Your task to perform on an android device: Clear the cart on amazon.com. Image 0: 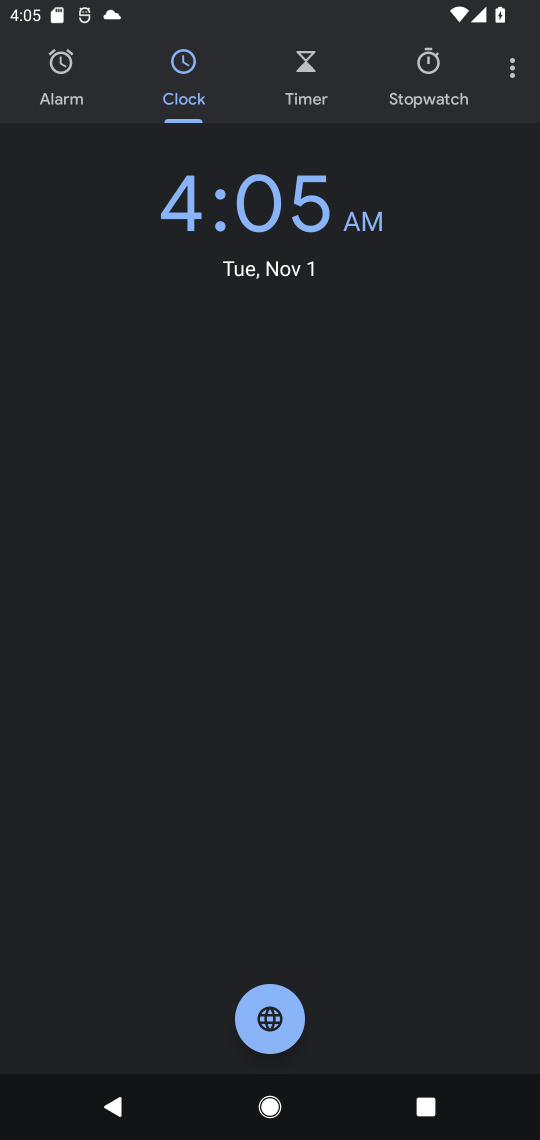
Step 0: press home button
Your task to perform on an android device: Clear the cart on amazon.com. Image 1: 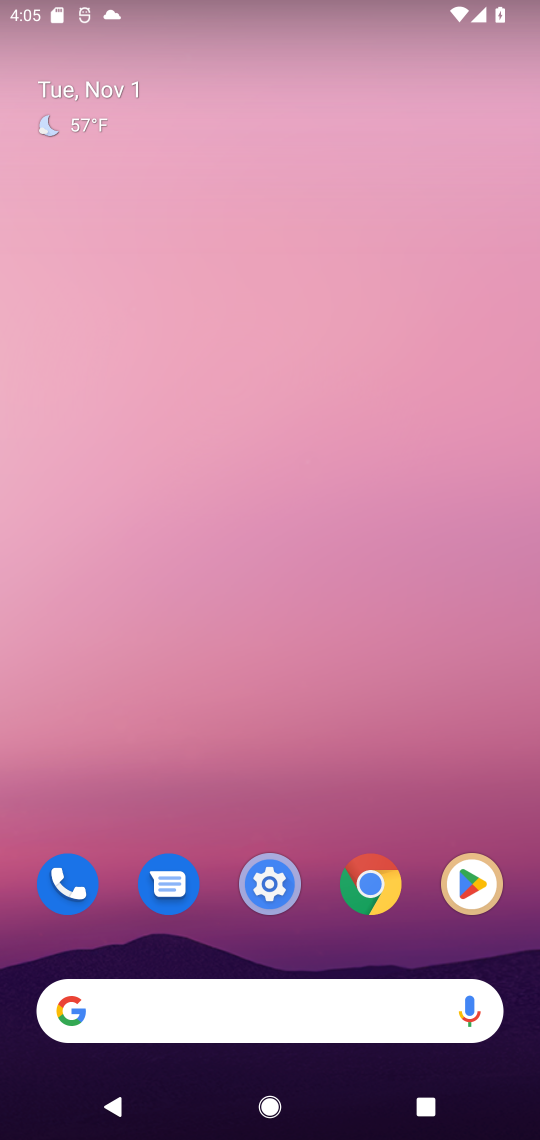
Step 1: click (103, 1013)
Your task to perform on an android device: Clear the cart on amazon.com. Image 2: 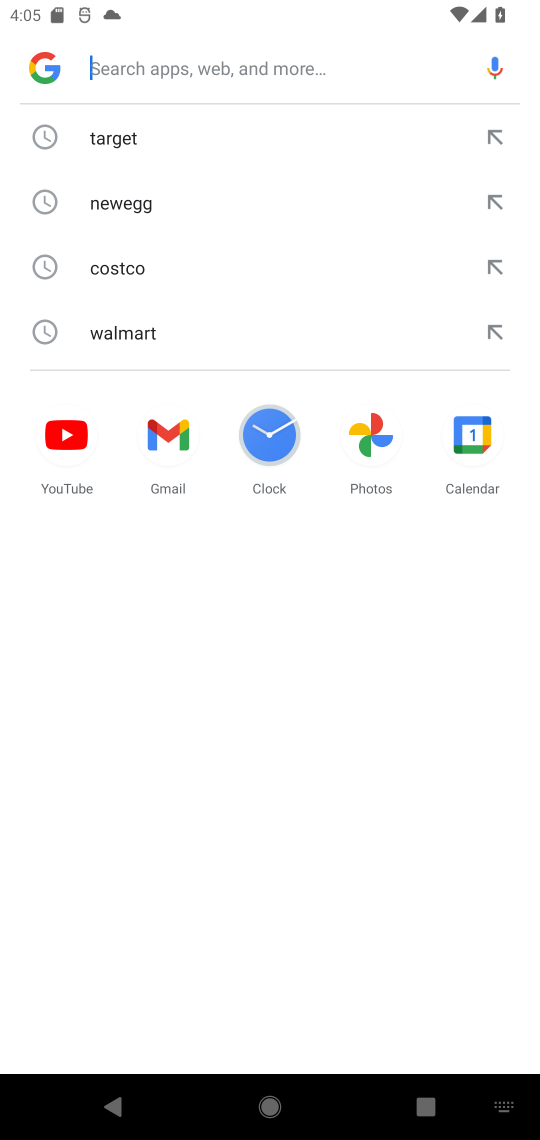
Step 2: type "amazon.com"
Your task to perform on an android device: Clear the cart on amazon.com. Image 3: 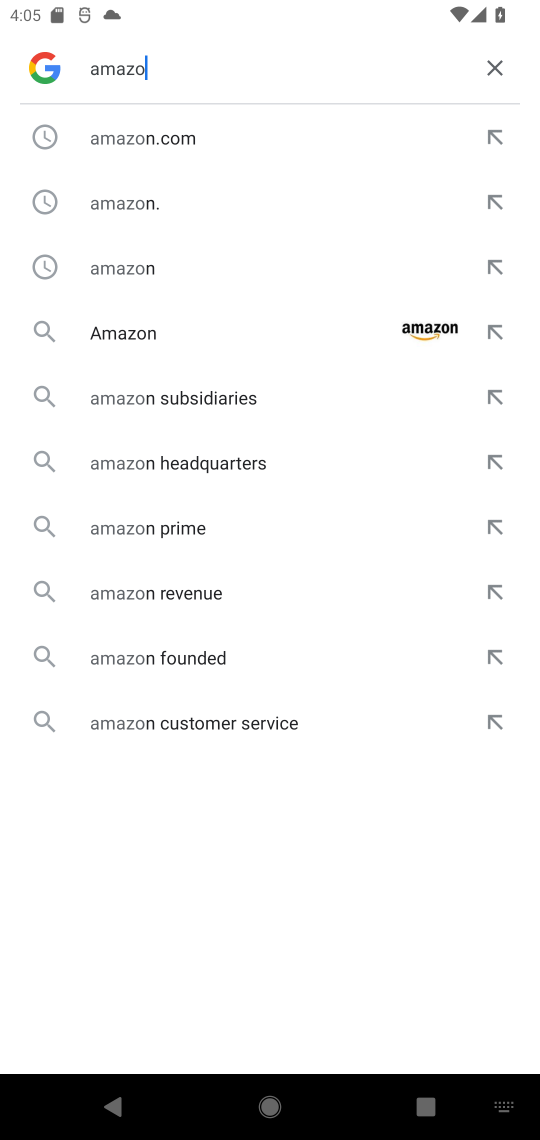
Step 3: press enter
Your task to perform on an android device: Clear the cart on amazon.com. Image 4: 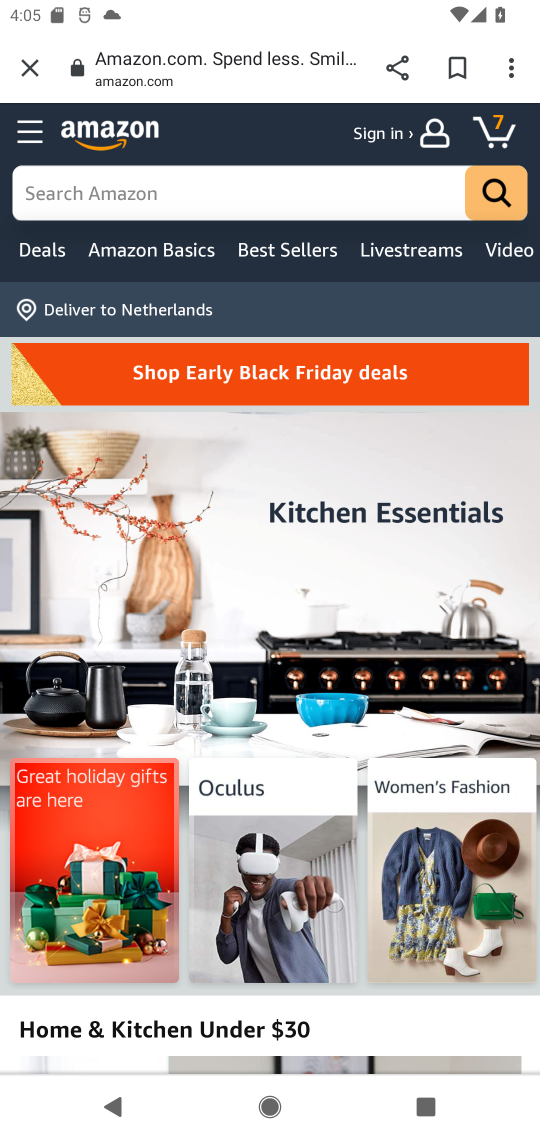
Step 4: click (496, 126)
Your task to perform on an android device: Clear the cart on amazon.com. Image 5: 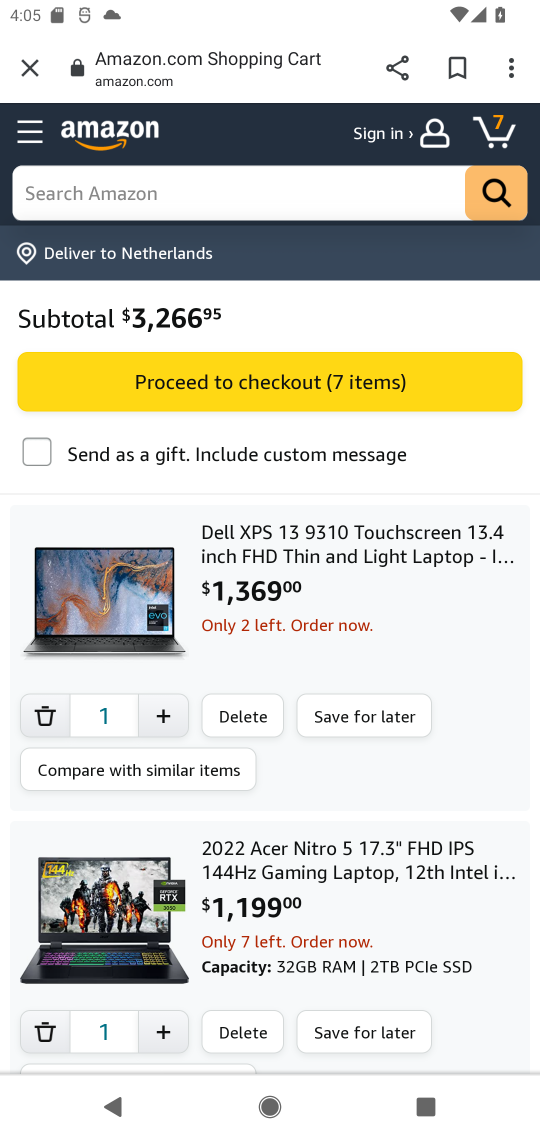
Step 5: click (37, 720)
Your task to perform on an android device: Clear the cart on amazon.com. Image 6: 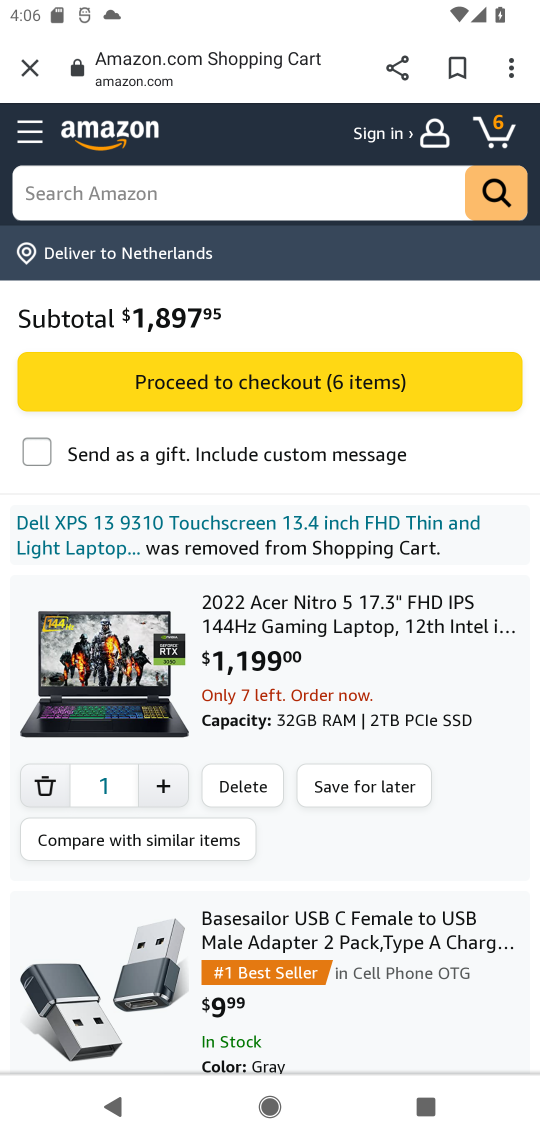
Step 6: click (42, 792)
Your task to perform on an android device: Clear the cart on amazon.com. Image 7: 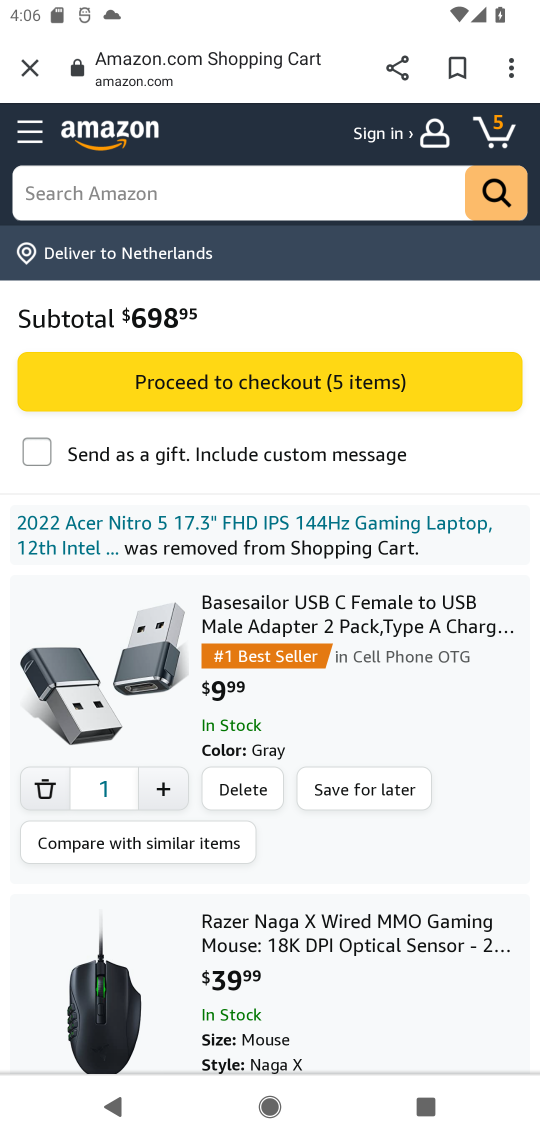
Step 7: click (43, 784)
Your task to perform on an android device: Clear the cart on amazon.com. Image 8: 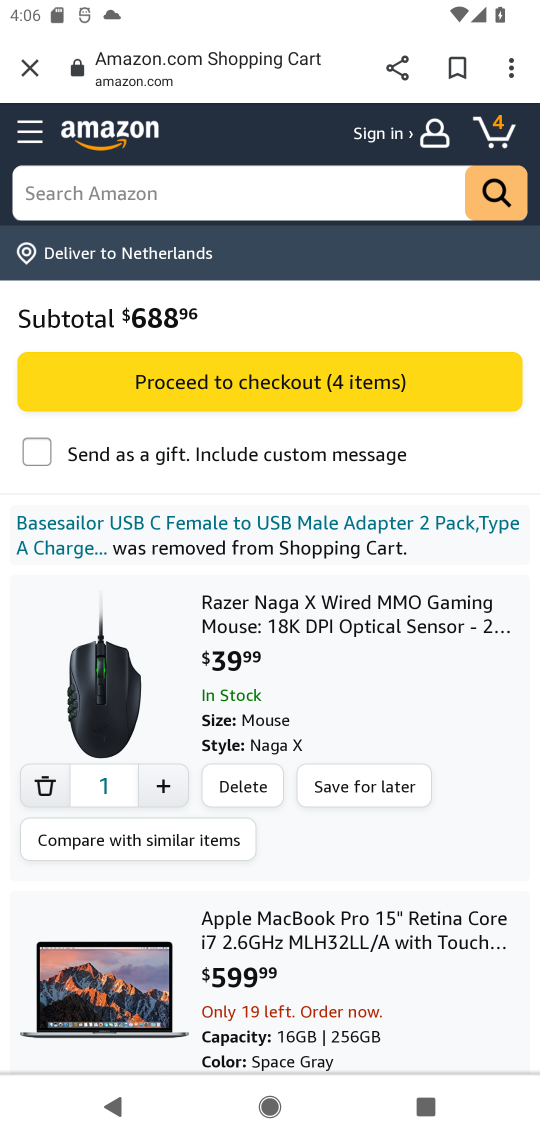
Step 8: click (40, 788)
Your task to perform on an android device: Clear the cart on amazon.com. Image 9: 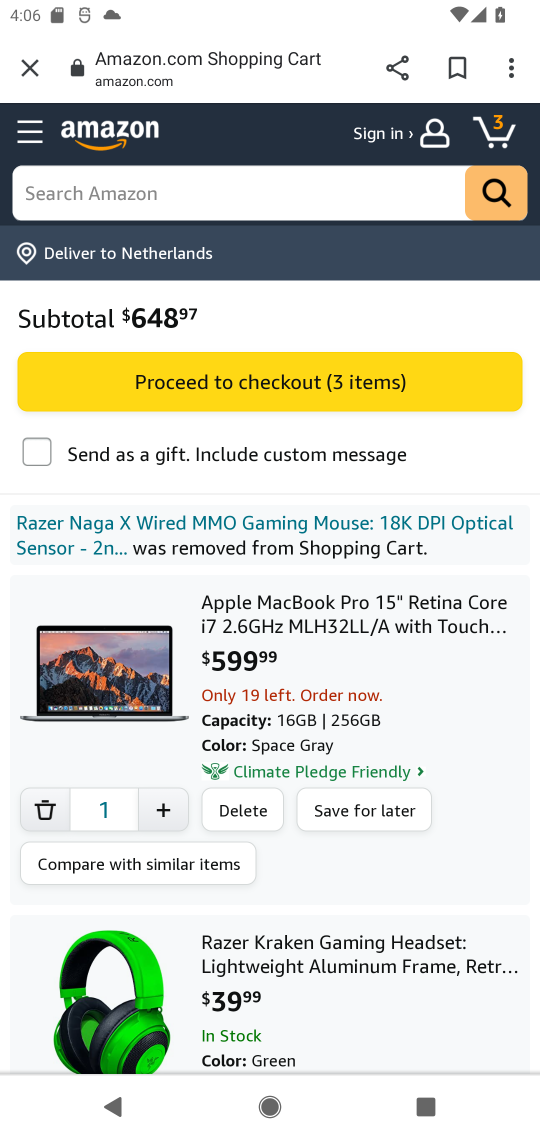
Step 9: click (42, 802)
Your task to perform on an android device: Clear the cart on amazon.com. Image 10: 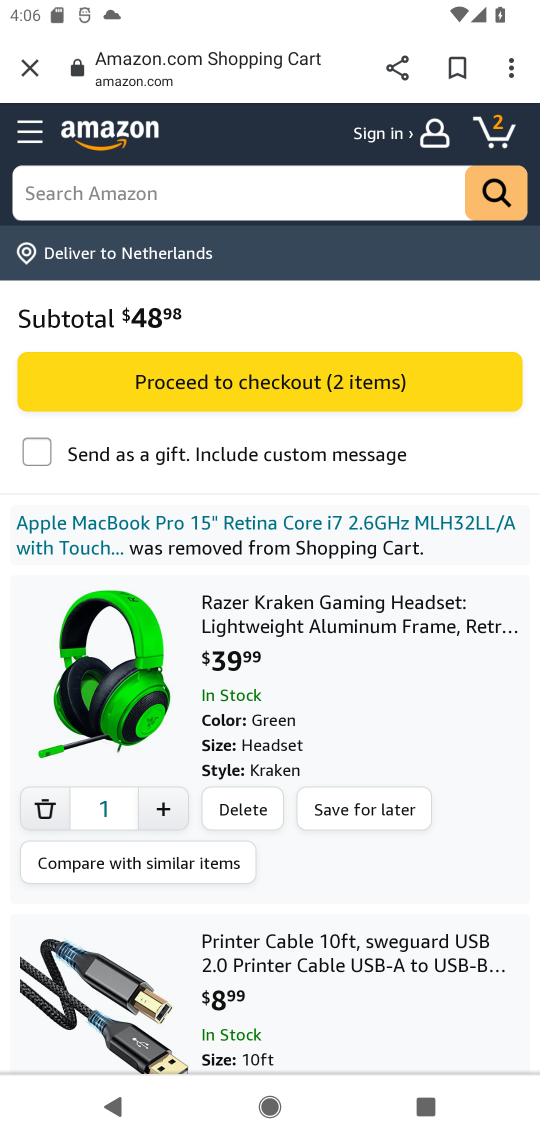
Step 10: click (39, 812)
Your task to perform on an android device: Clear the cart on amazon.com. Image 11: 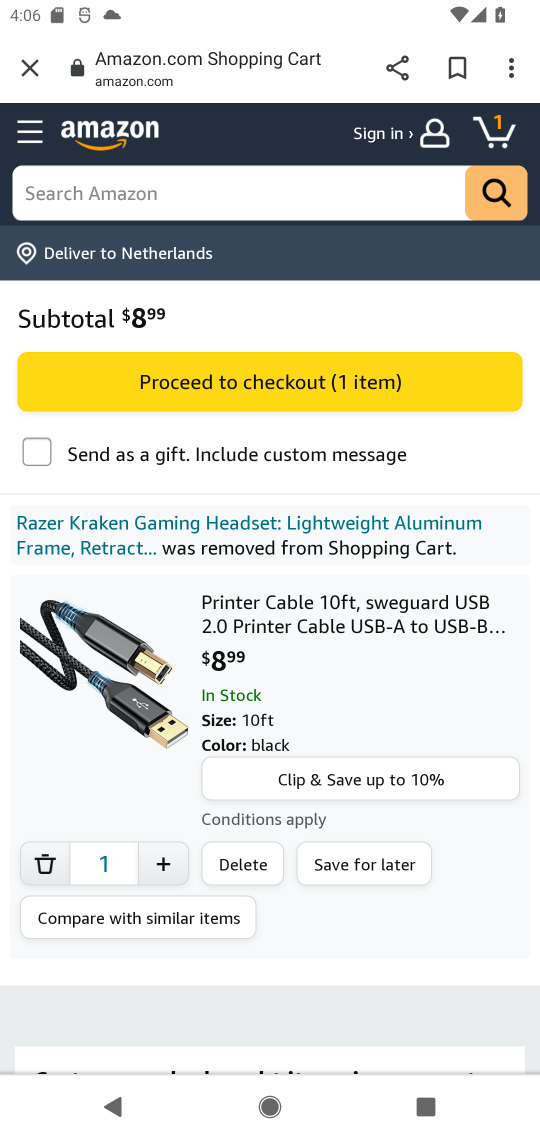
Step 11: click (41, 860)
Your task to perform on an android device: Clear the cart on amazon.com. Image 12: 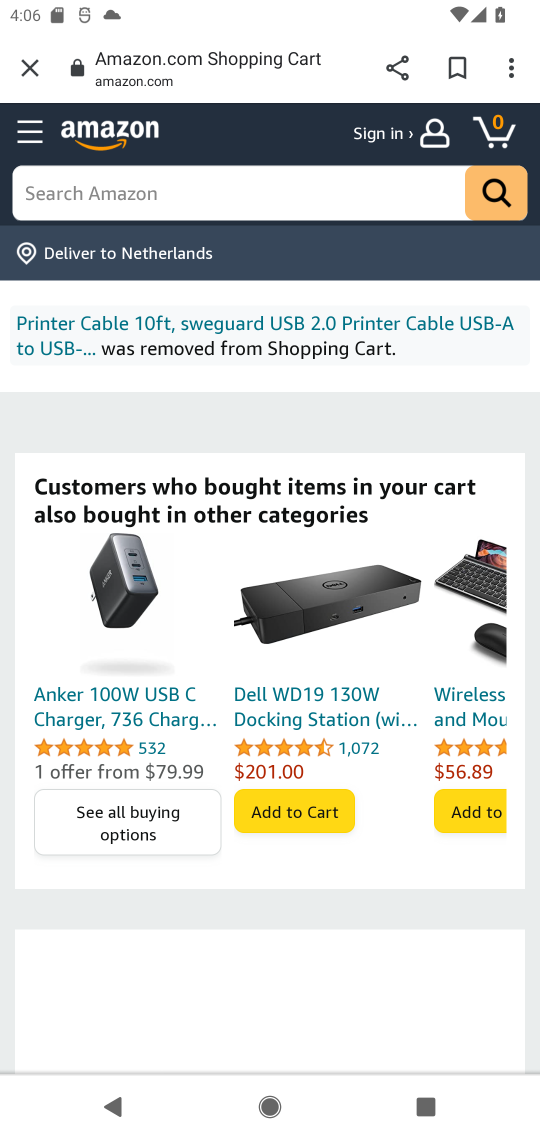
Step 12: task complete